Your task to perform on an android device: What's the latest news in space technology? Image 0: 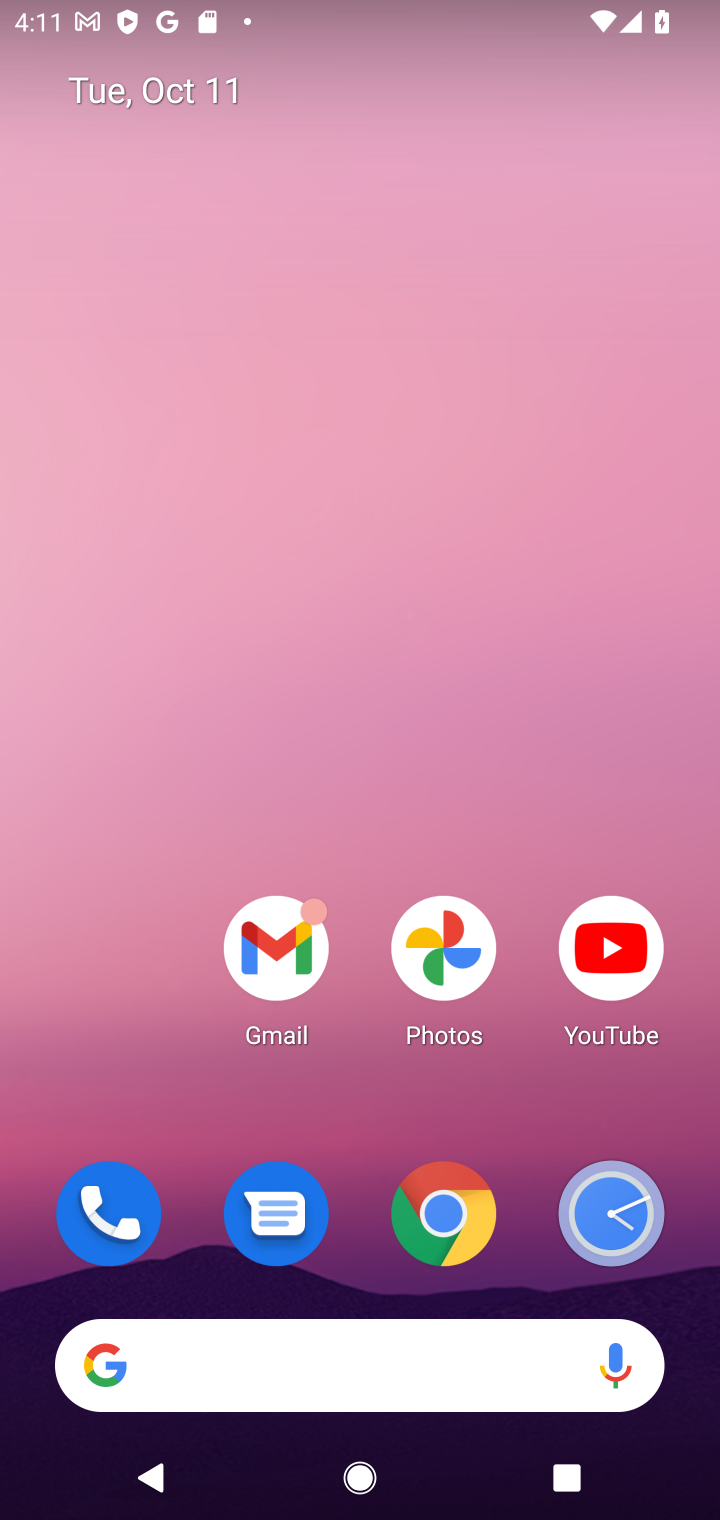
Step 0: click (448, 1220)
Your task to perform on an android device: What's the latest news in space technology? Image 1: 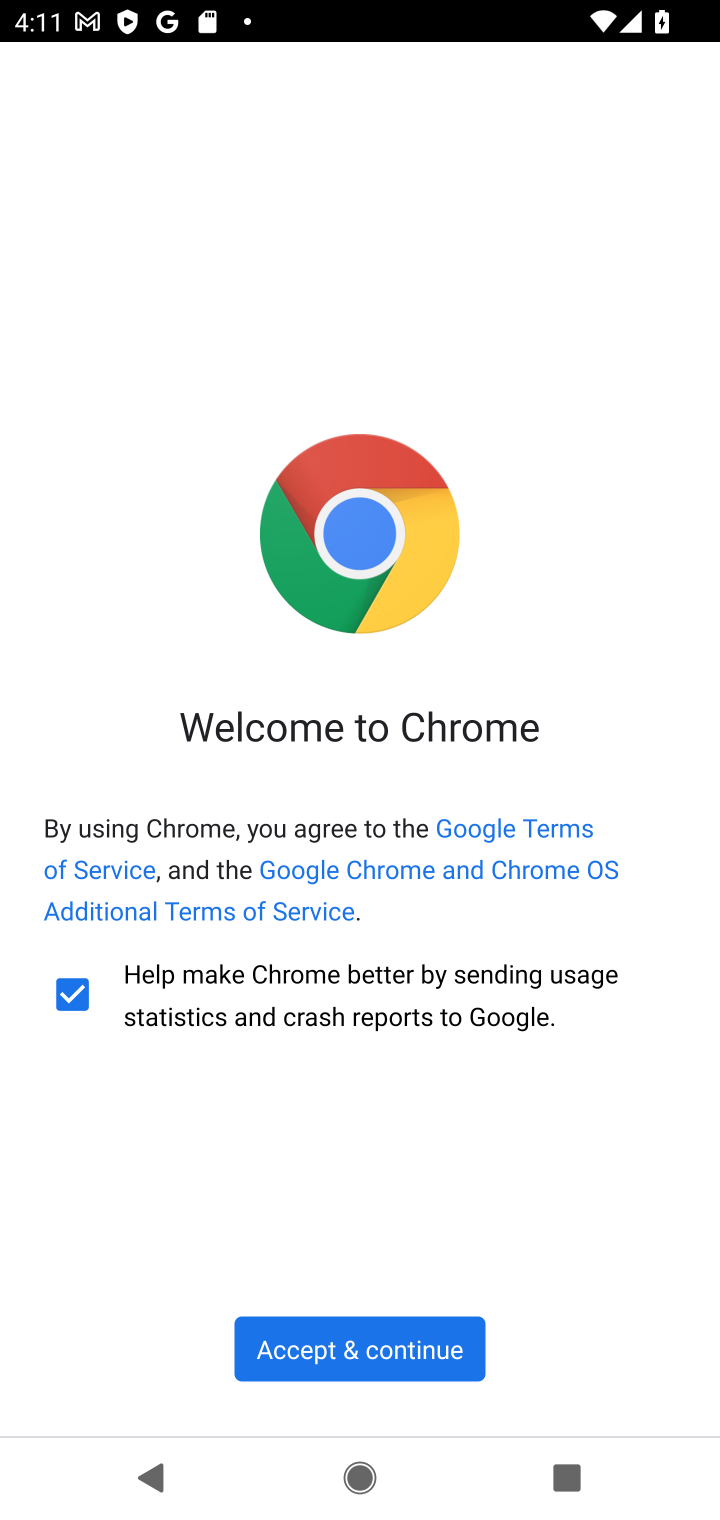
Step 1: click (371, 1335)
Your task to perform on an android device: What's the latest news in space technology? Image 2: 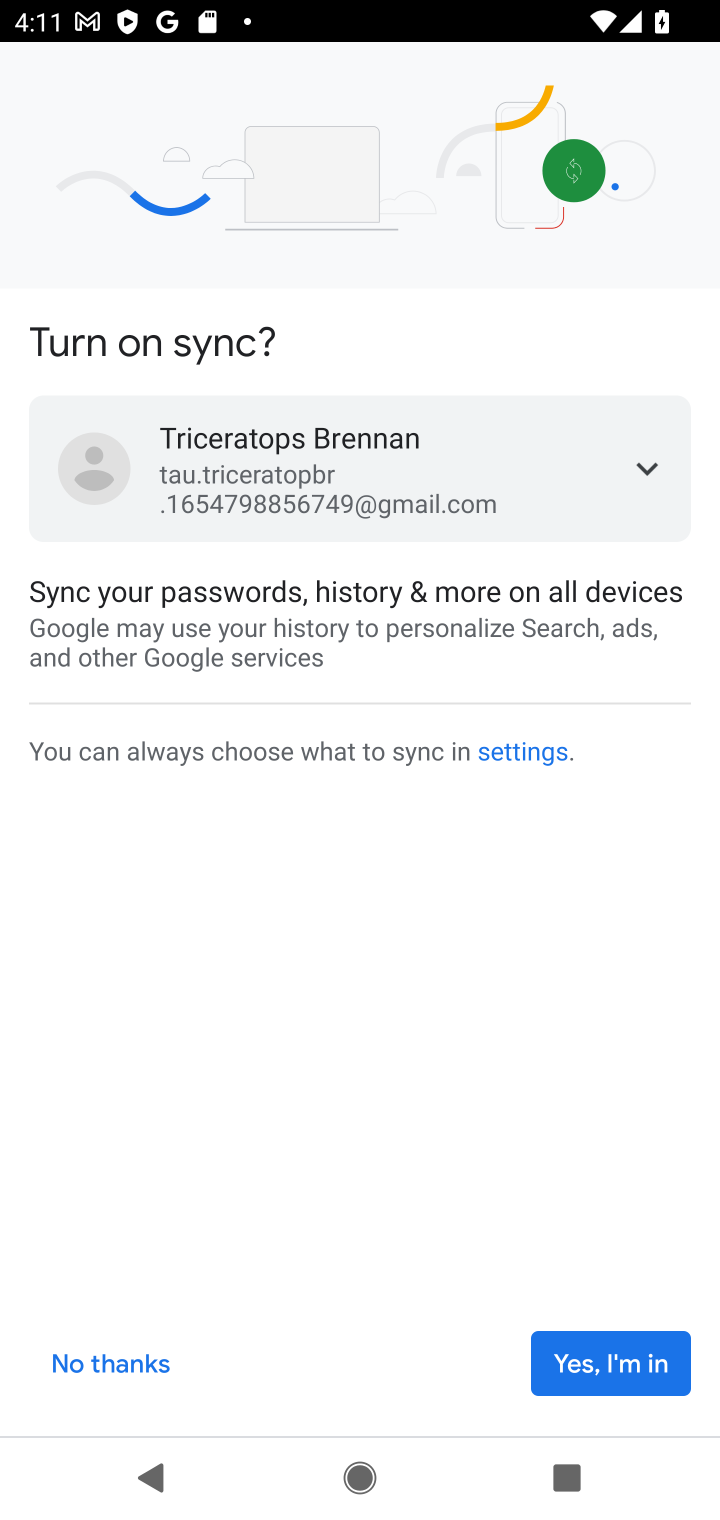
Step 2: click (123, 1361)
Your task to perform on an android device: What's the latest news in space technology? Image 3: 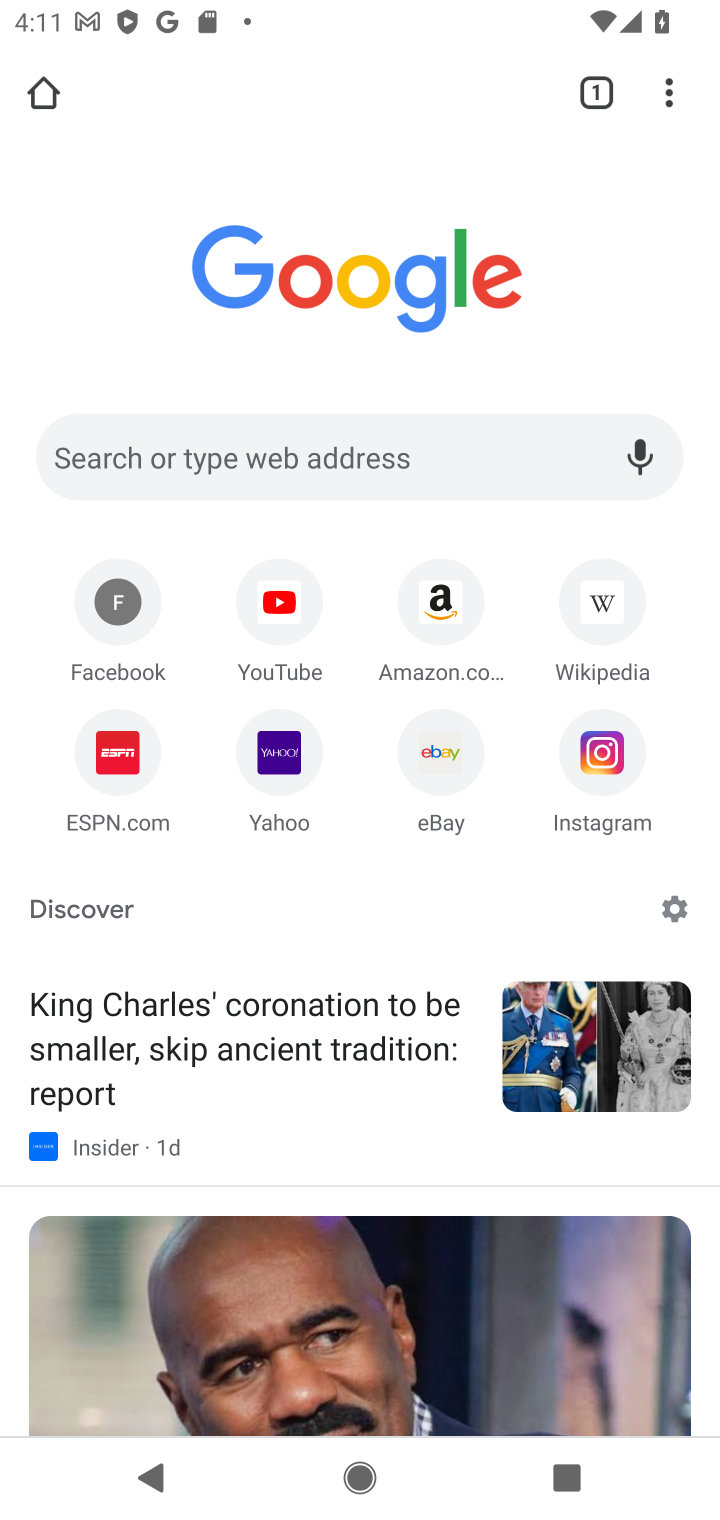
Step 3: click (221, 453)
Your task to perform on an android device: What's the latest news in space technology? Image 4: 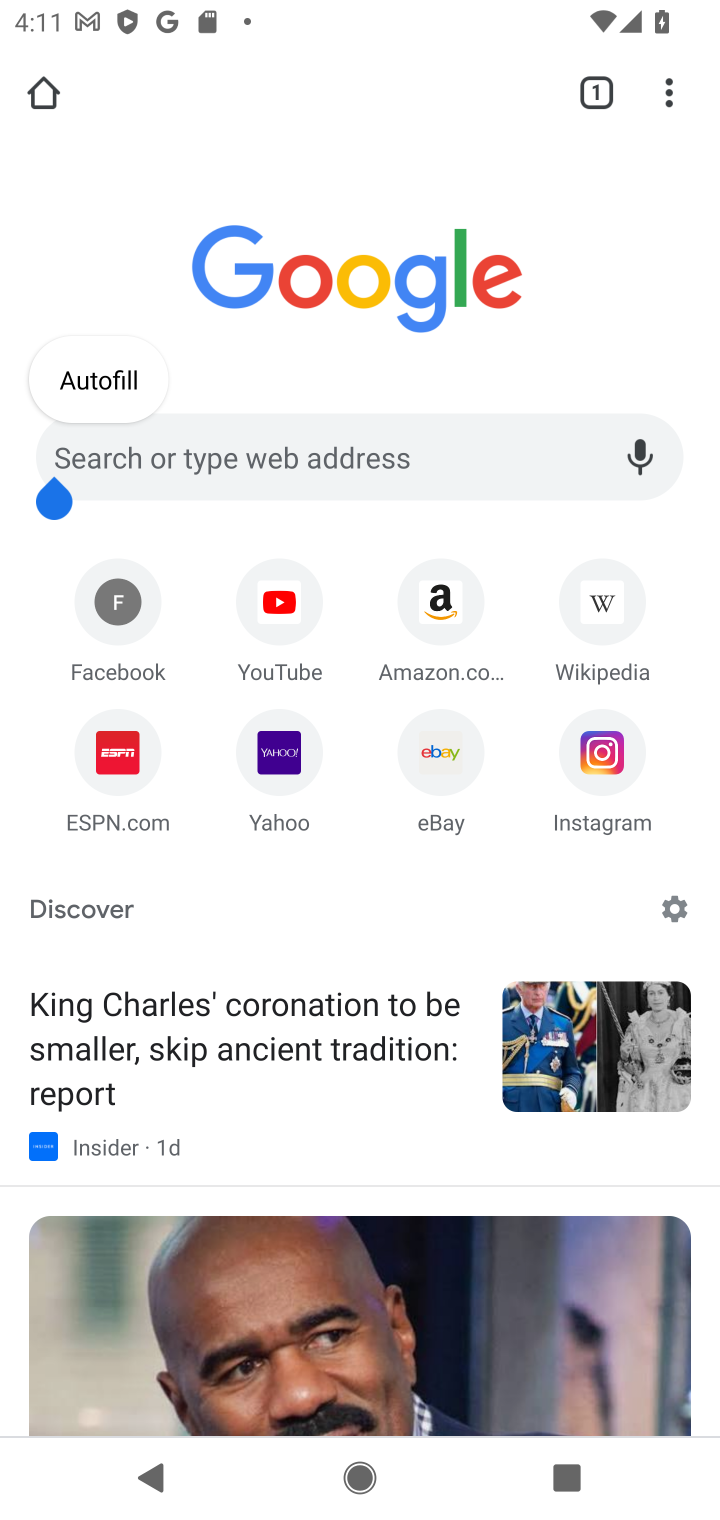
Step 4: click (263, 455)
Your task to perform on an android device: What's the latest news in space technology? Image 5: 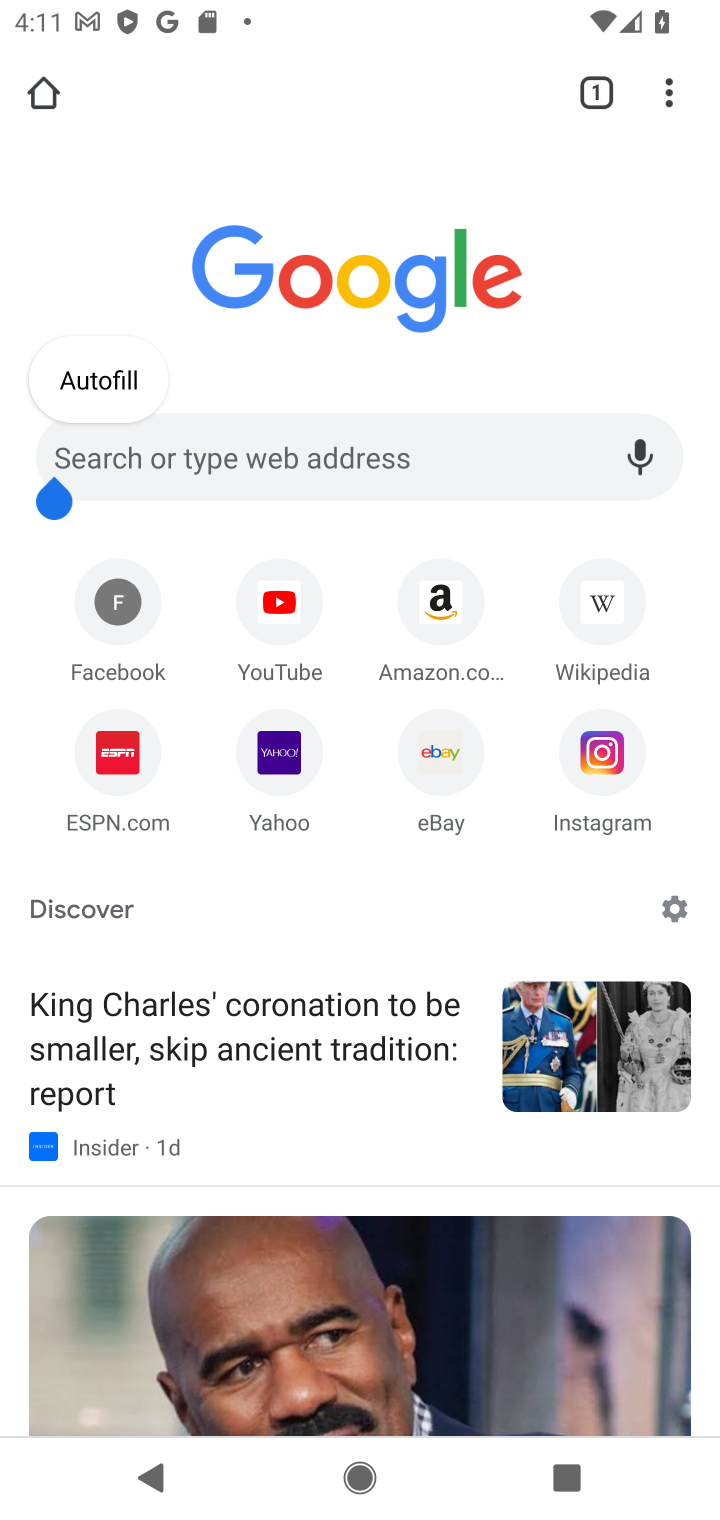
Step 5: click (181, 459)
Your task to perform on an android device: What's the latest news in space technology? Image 6: 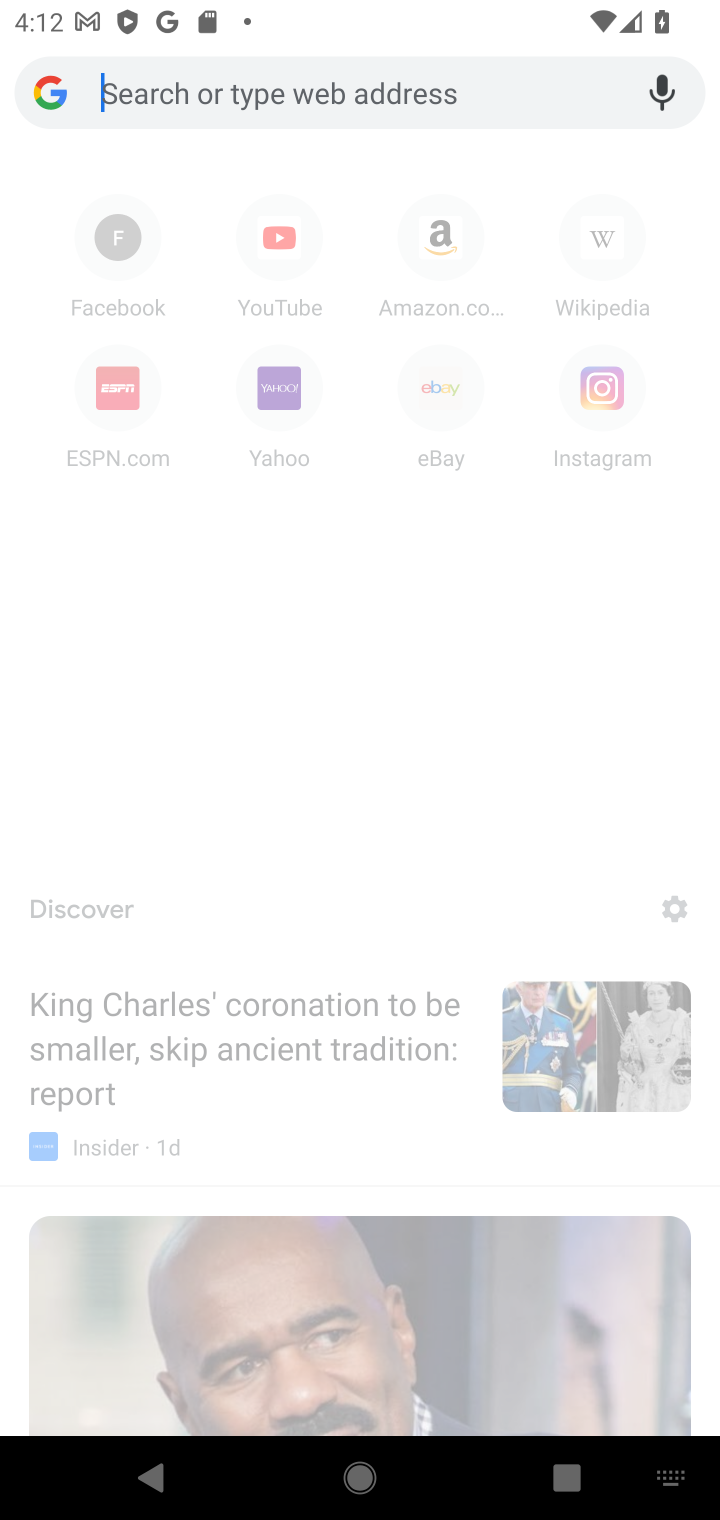
Step 6: type "space technology"
Your task to perform on an android device: What's the latest news in space technology? Image 7: 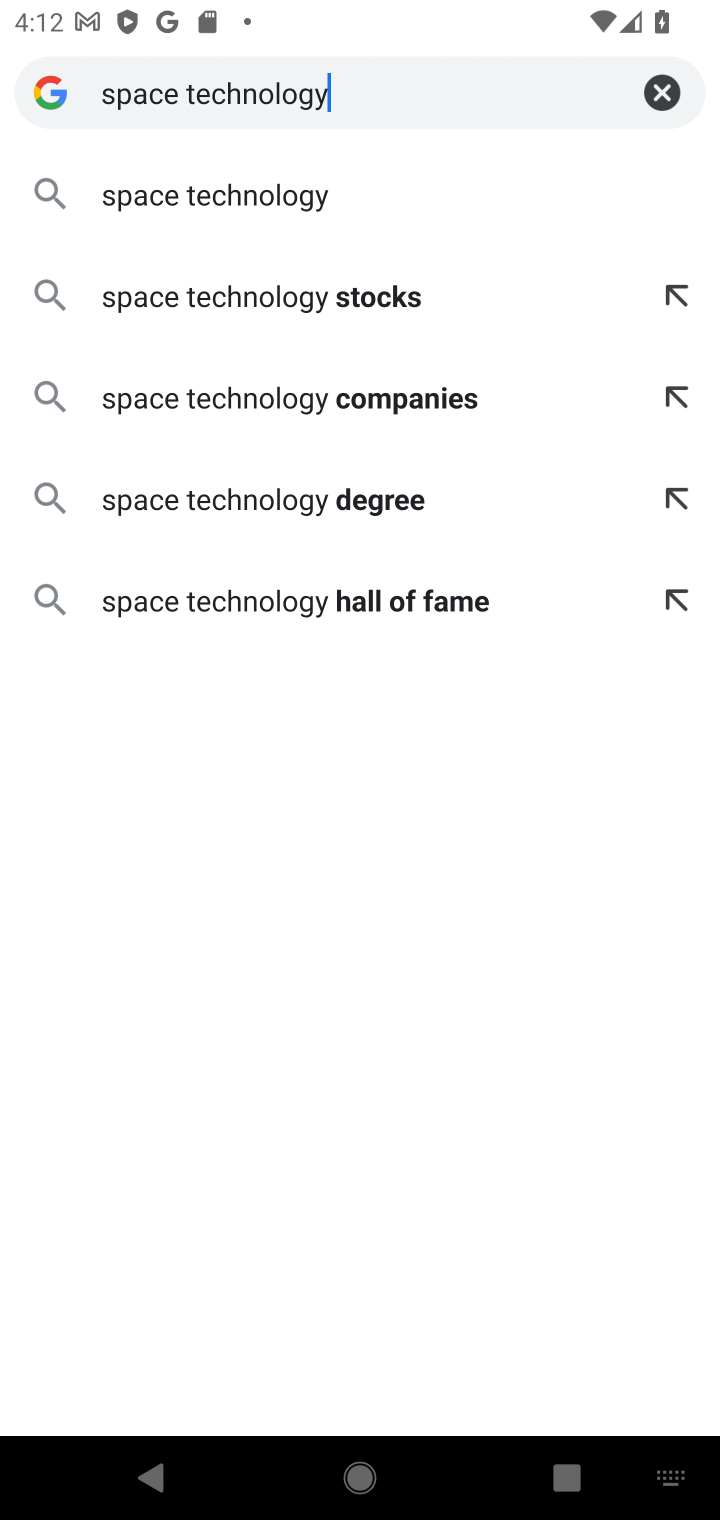
Step 7: click (256, 211)
Your task to perform on an android device: What's the latest news in space technology? Image 8: 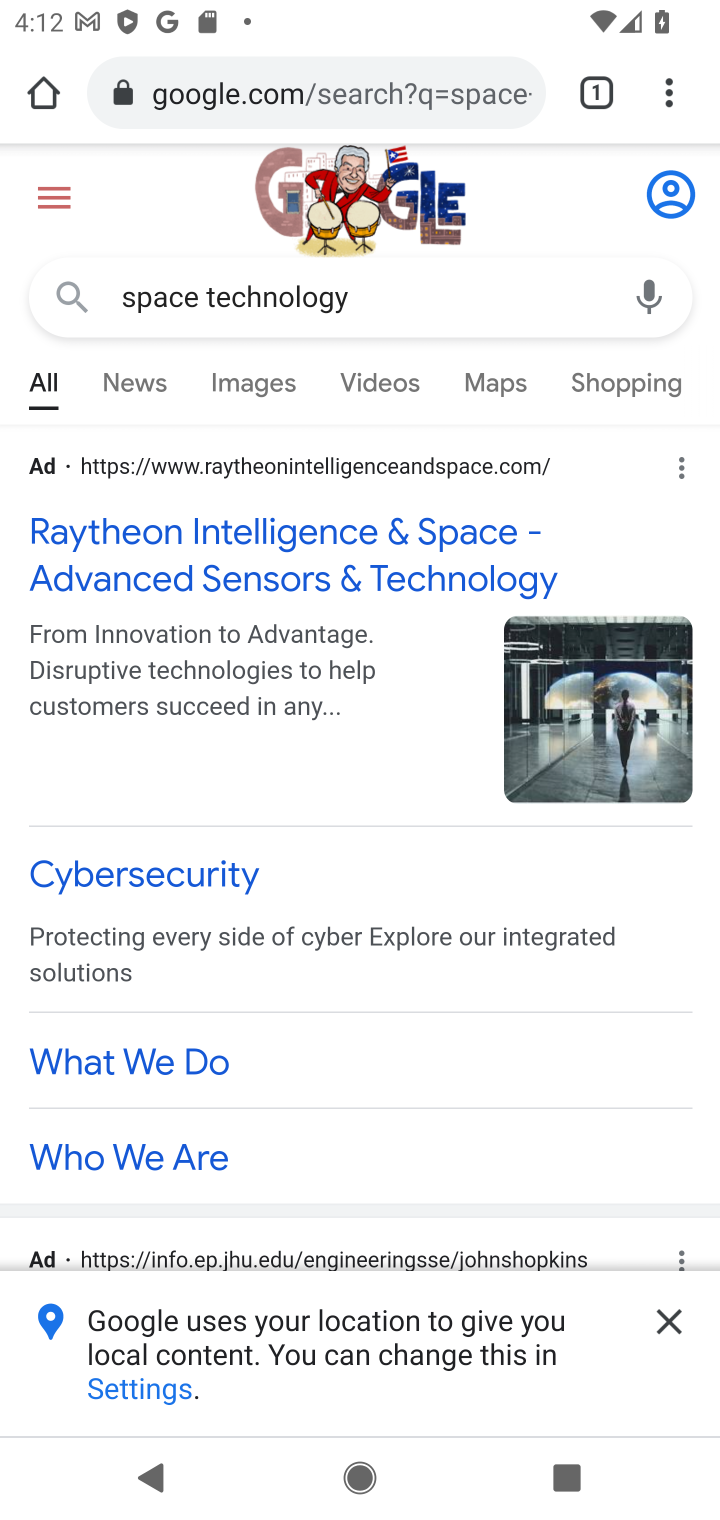
Step 8: click (118, 396)
Your task to perform on an android device: What's the latest news in space technology? Image 9: 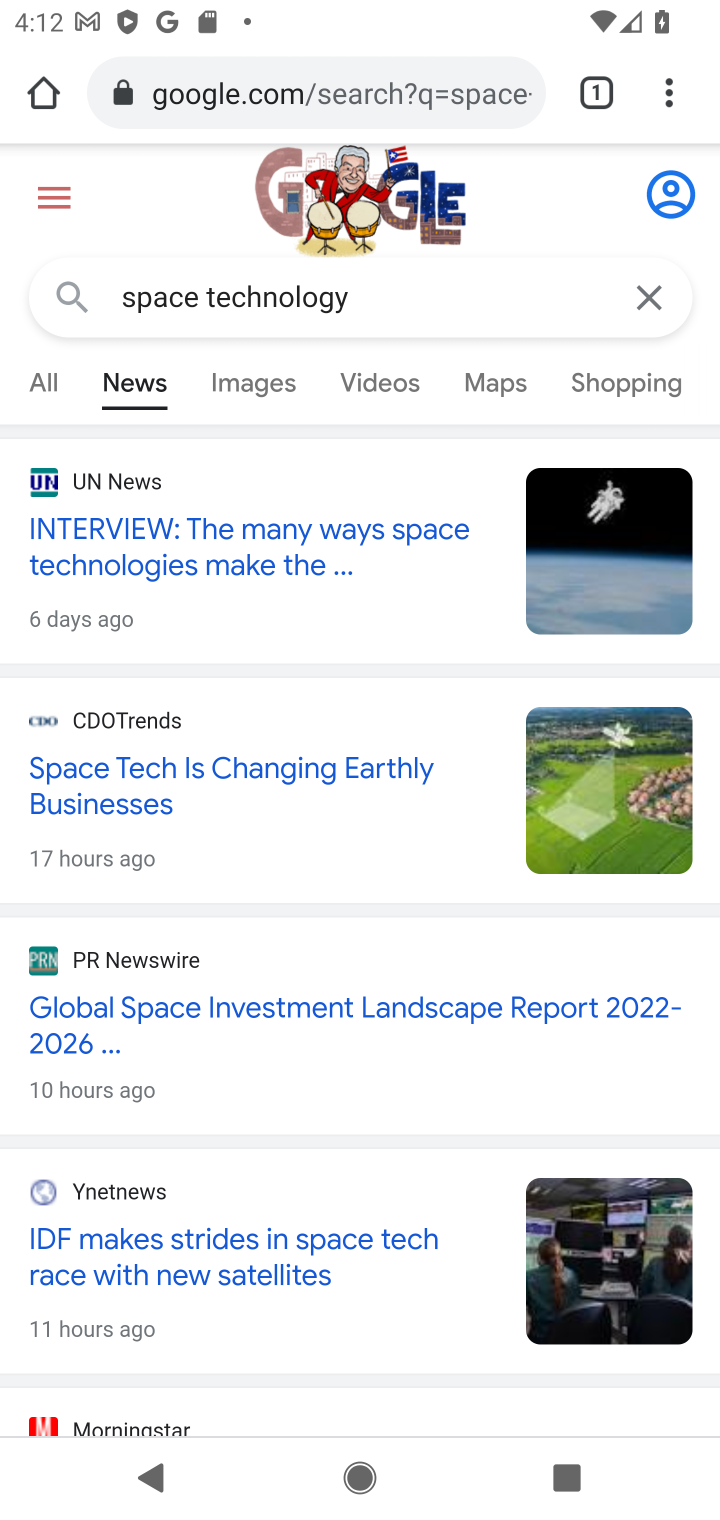
Step 9: click (103, 1032)
Your task to perform on an android device: What's the latest news in space technology? Image 10: 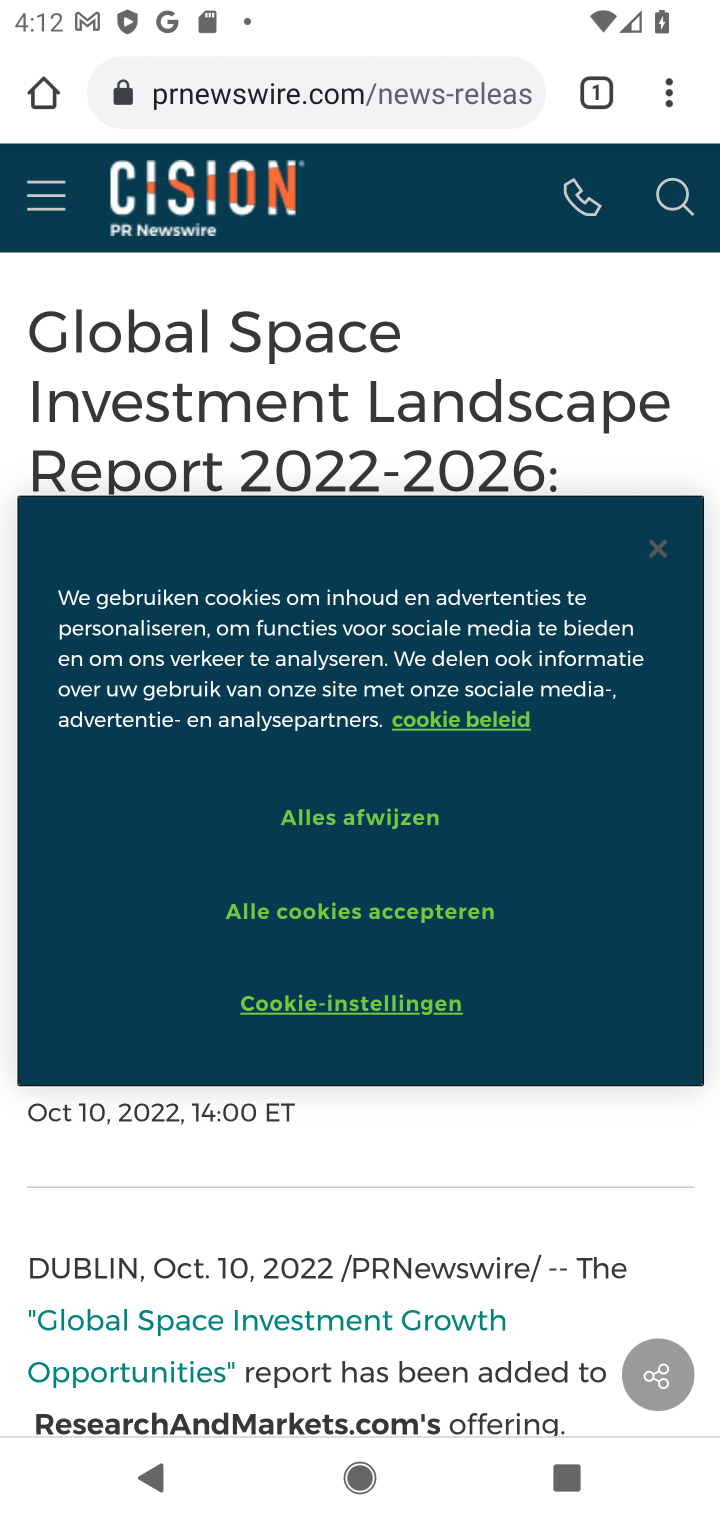
Step 10: task complete